Your task to perform on an android device: open chrome and create a bookmark for the current page Image 0: 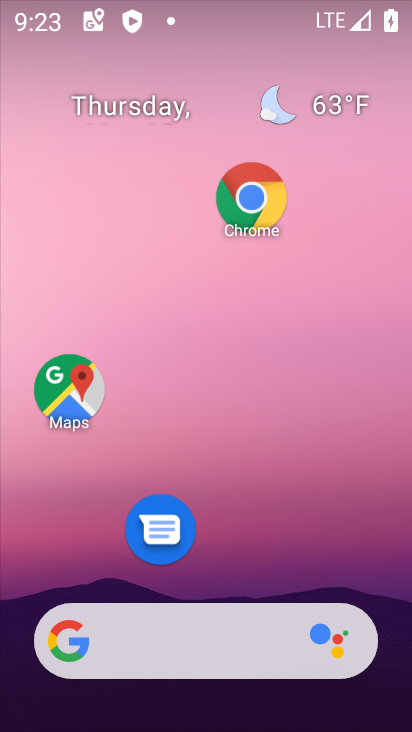
Step 0: drag from (266, 515) to (297, 228)
Your task to perform on an android device: open chrome and create a bookmark for the current page Image 1: 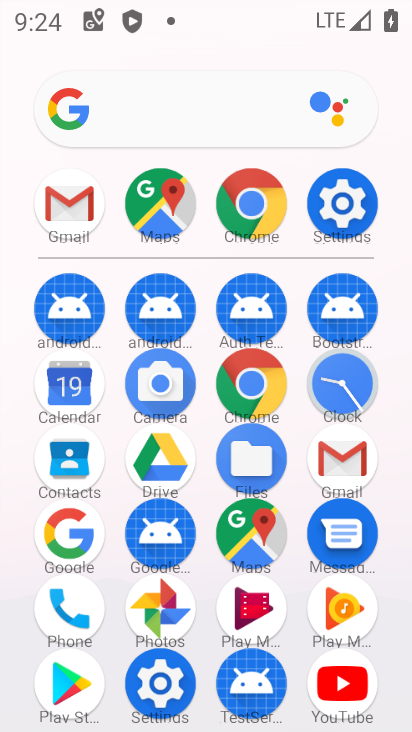
Step 1: click (255, 222)
Your task to perform on an android device: open chrome and create a bookmark for the current page Image 2: 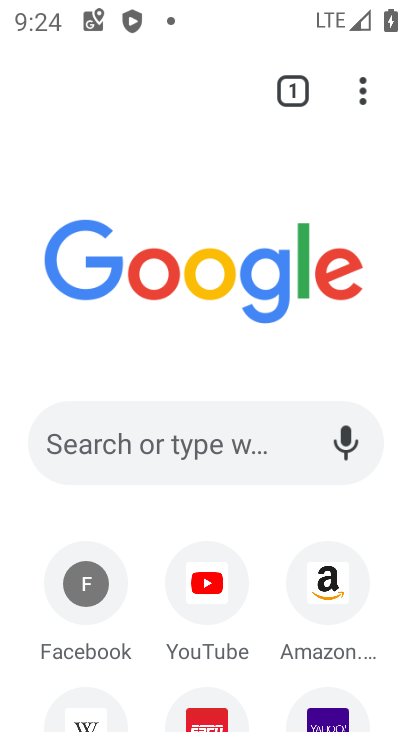
Step 2: click (362, 104)
Your task to perform on an android device: open chrome and create a bookmark for the current page Image 3: 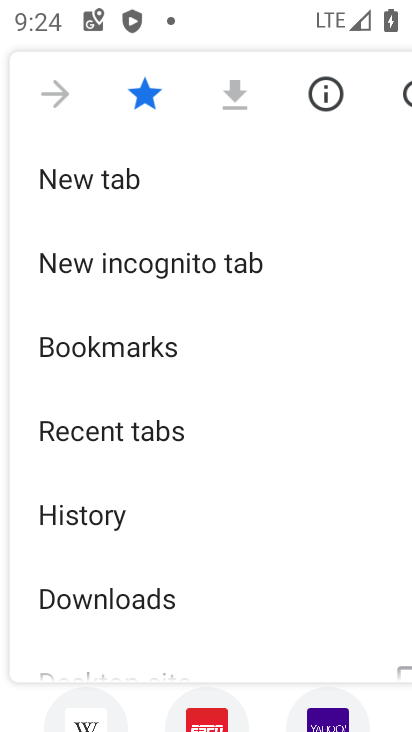
Step 3: task complete